Your task to perform on an android device: Open Chrome and go to the settings page Image 0: 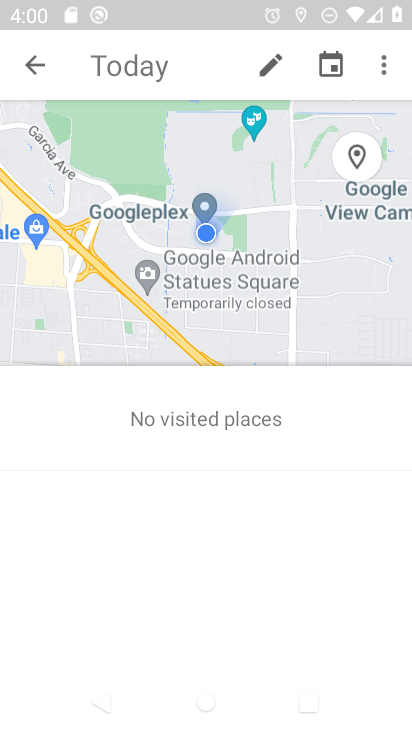
Step 0: press home button
Your task to perform on an android device: Open Chrome and go to the settings page Image 1: 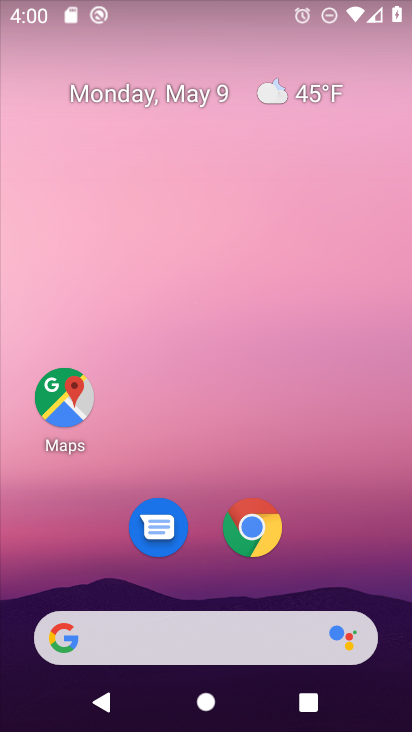
Step 1: click (257, 545)
Your task to perform on an android device: Open Chrome and go to the settings page Image 2: 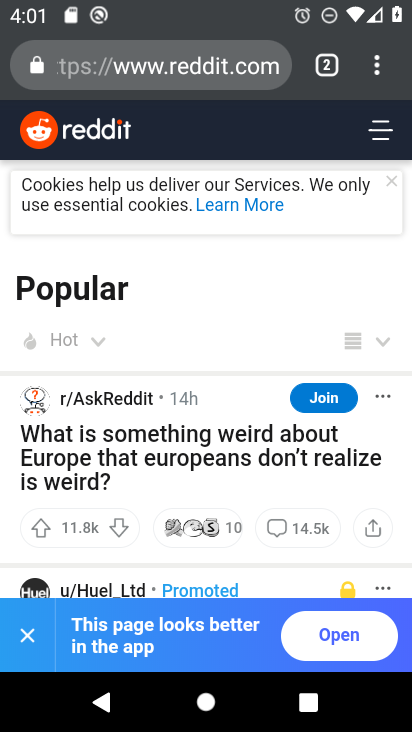
Step 2: task complete